Your task to perform on an android device: turn off data saver in the chrome app Image 0: 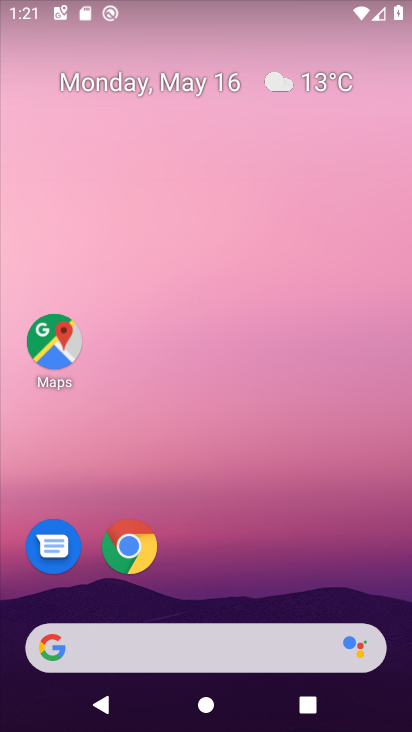
Step 0: click (137, 553)
Your task to perform on an android device: turn off data saver in the chrome app Image 1: 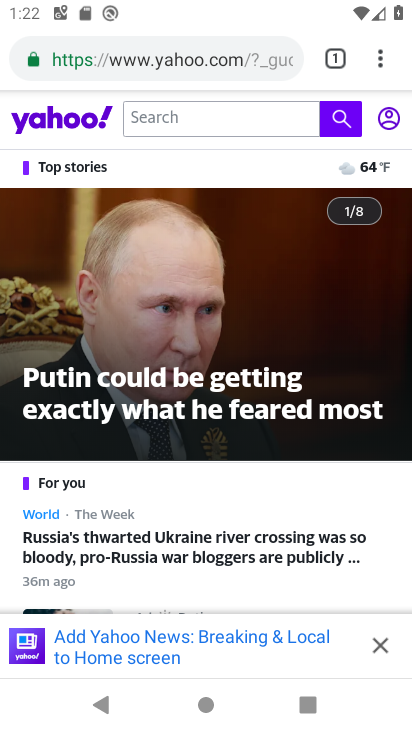
Step 1: click (380, 65)
Your task to perform on an android device: turn off data saver in the chrome app Image 2: 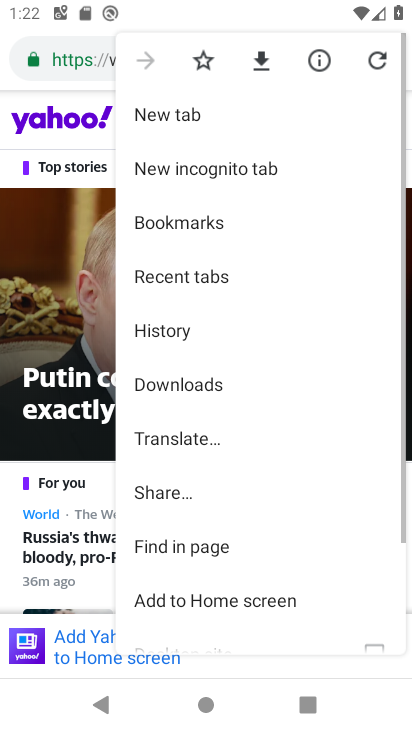
Step 2: drag from (171, 569) to (170, 139)
Your task to perform on an android device: turn off data saver in the chrome app Image 3: 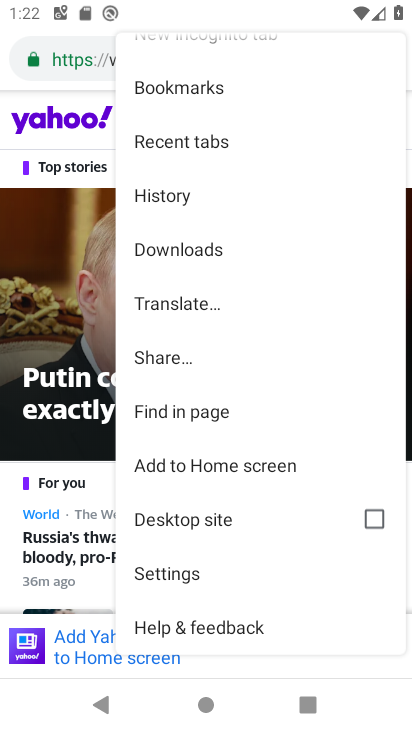
Step 3: click (157, 573)
Your task to perform on an android device: turn off data saver in the chrome app Image 4: 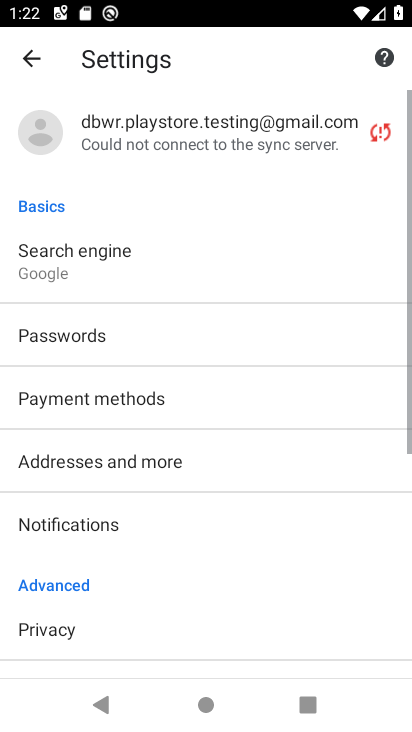
Step 4: drag from (143, 652) to (147, 198)
Your task to perform on an android device: turn off data saver in the chrome app Image 5: 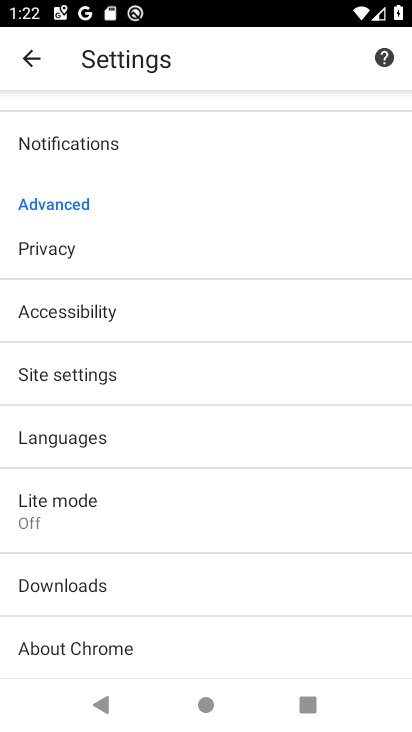
Step 5: click (65, 496)
Your task to perform on an android device: turn off data saver in the chrome app Image 6: 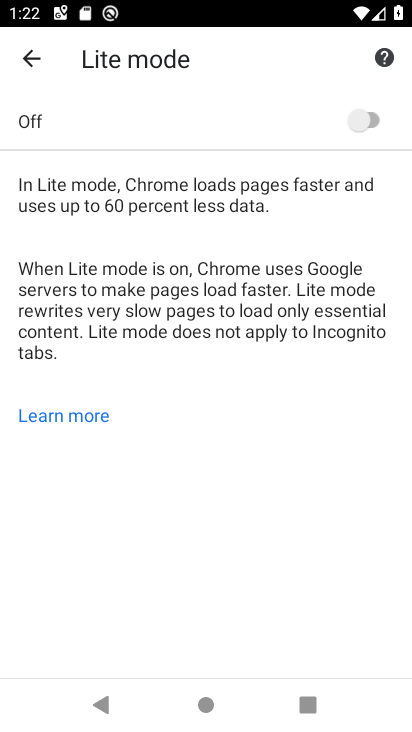
Step 6: task complete